Your task to perform on an android device: install app "Yahoo Mail" Image 0: 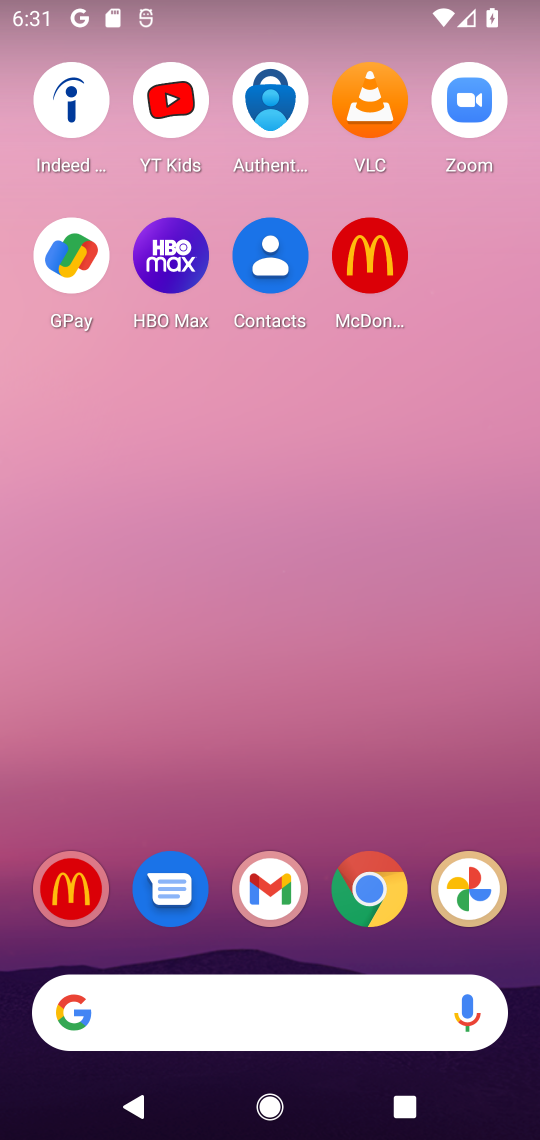
Step 0: press home button
Your task to perform on an android device: install app "Yahoo Mail" Image 1: 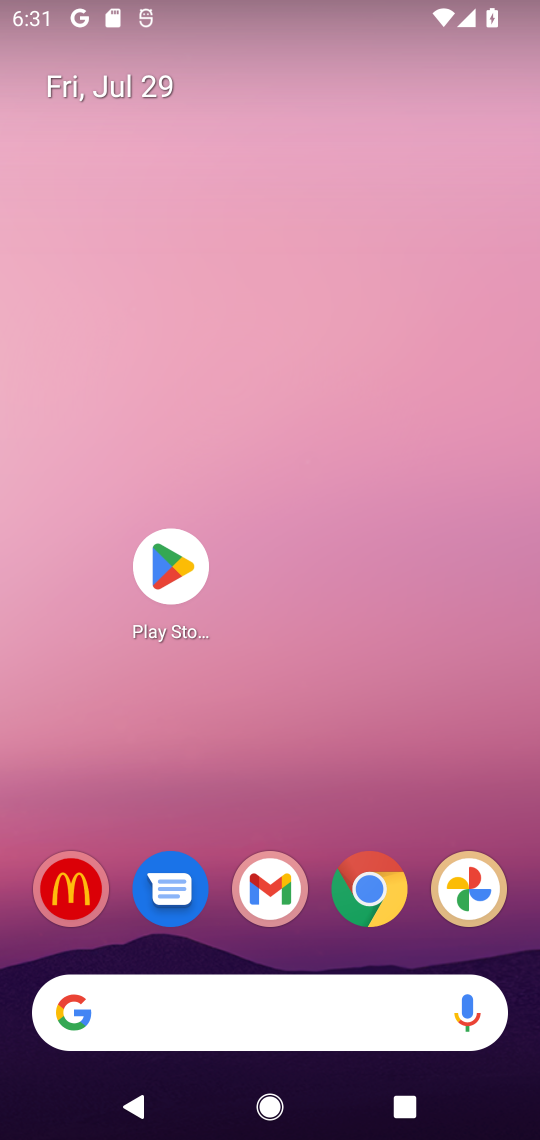
Step 1: click (174, 561)
Your task to perform on an android device: install app "Yahoo Mail" Image 2: 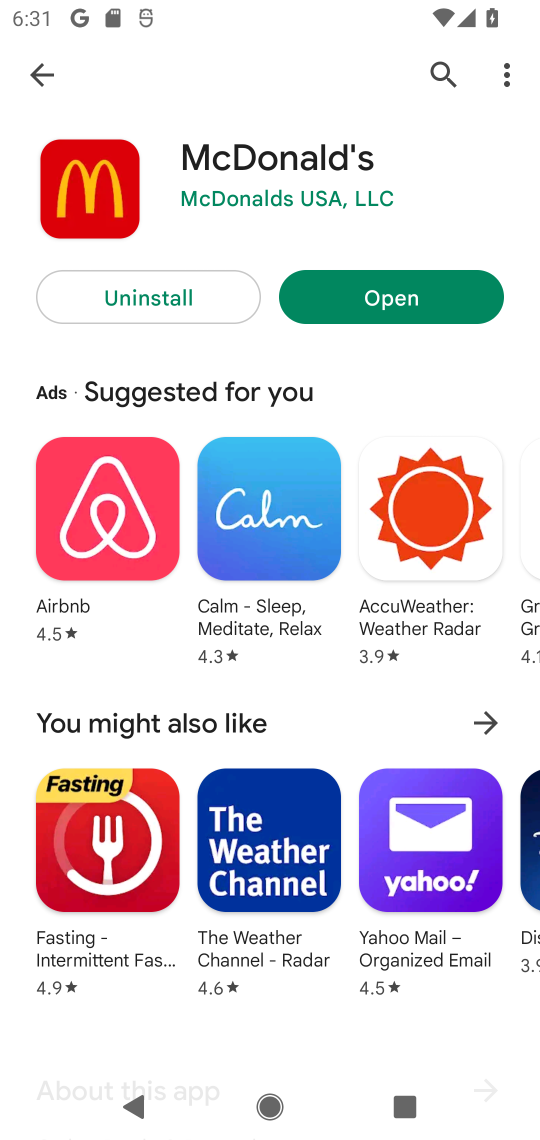
Step 2: click (439, 64)
Your task to perform on an android device: install app "Yahoo Mail" Image 3: 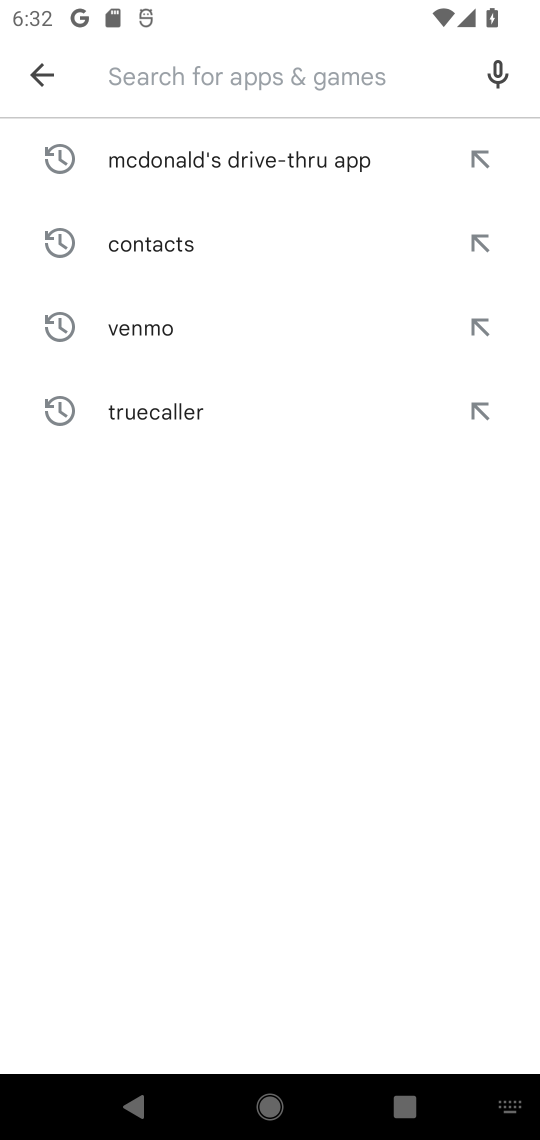
Step 3: type "Yahoo Mail"
Your task to perform on an android device: install app "Yahoo Mail" Image 4: 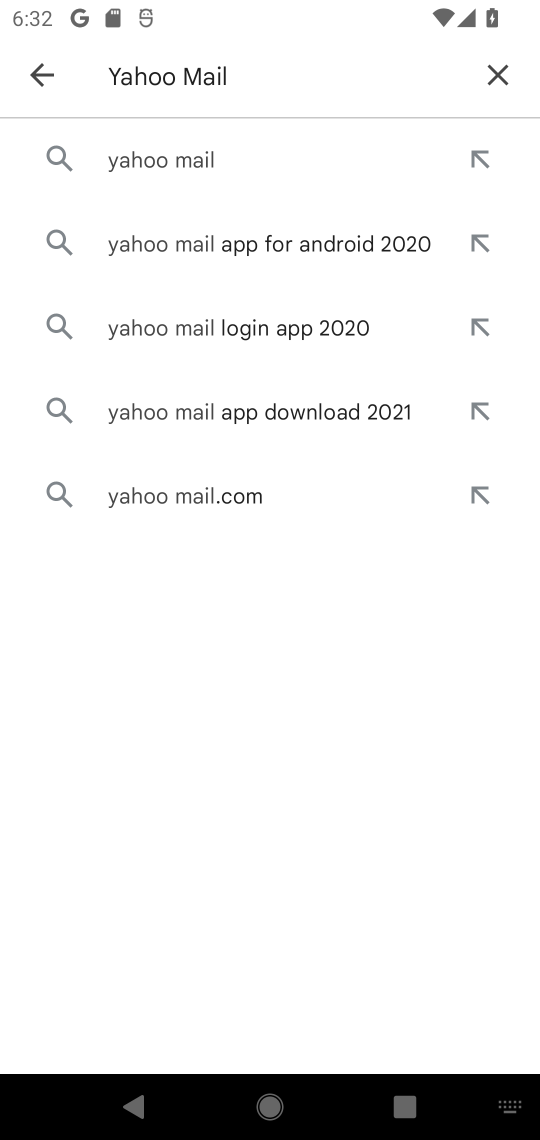
Step 4: click (199, 153)
Your task to perform on an android device: install app "Yahoo Mail" Image 5: 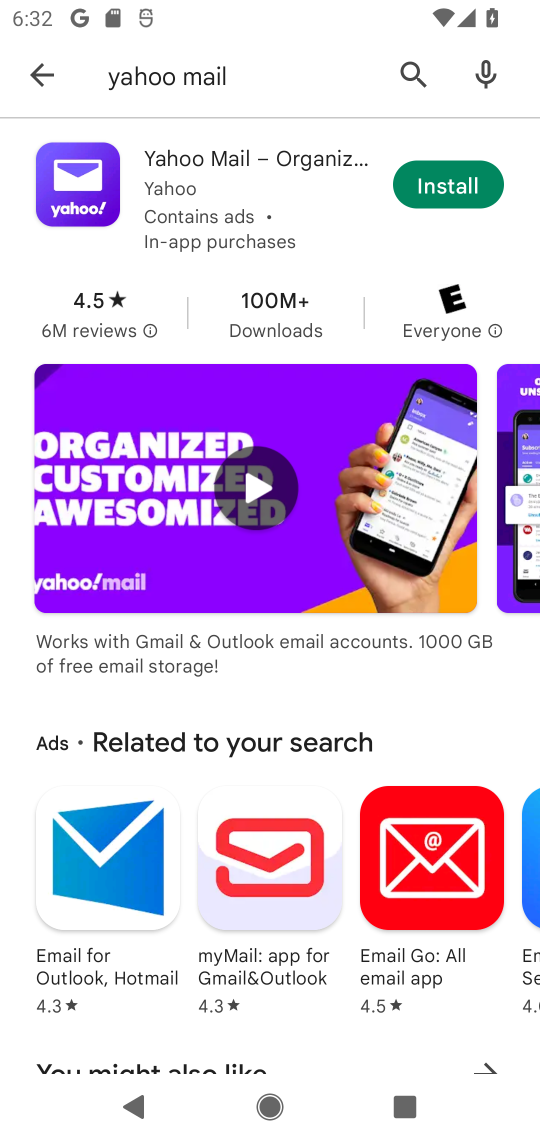
Step 5: click (442, 182)
Your task to perform on an android device: install app "Yahoo Mail" Image 6: 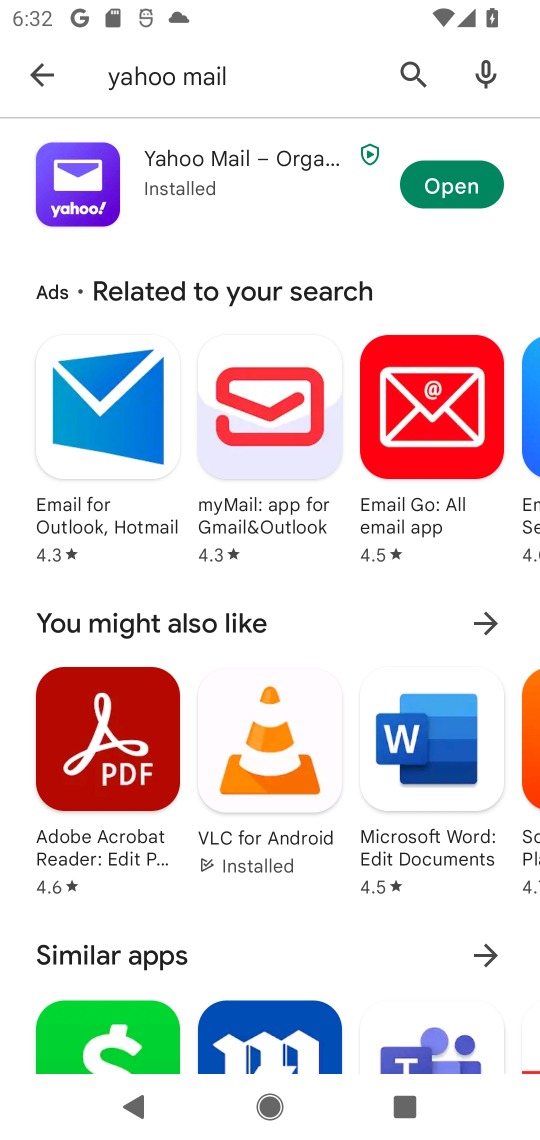
Step 6: task complete